Your task to perform on an android device: open a bookmark in the chrome app Image 0: 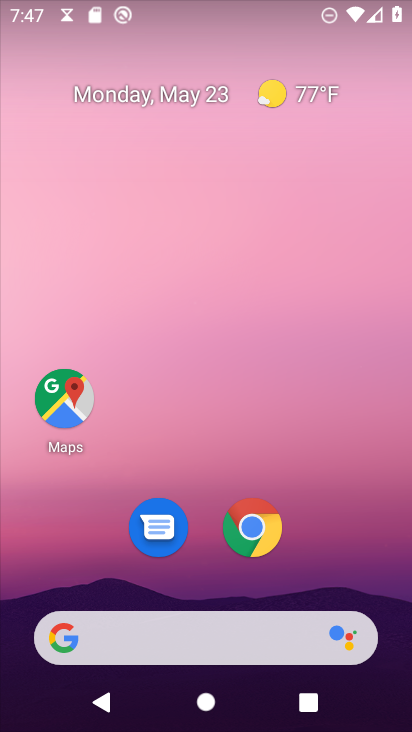
Step 0: drag from (280, 634) to (324, 171)
Your task to perform on an android device: open a bookmark in the chrome app Image 1: 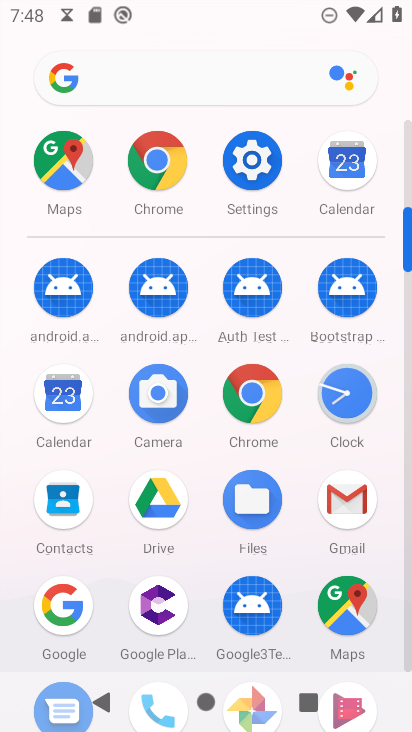
Step 1: click (157, 156)
Your task to perform on an android device: open a bookmark in the chrome app Image 2: 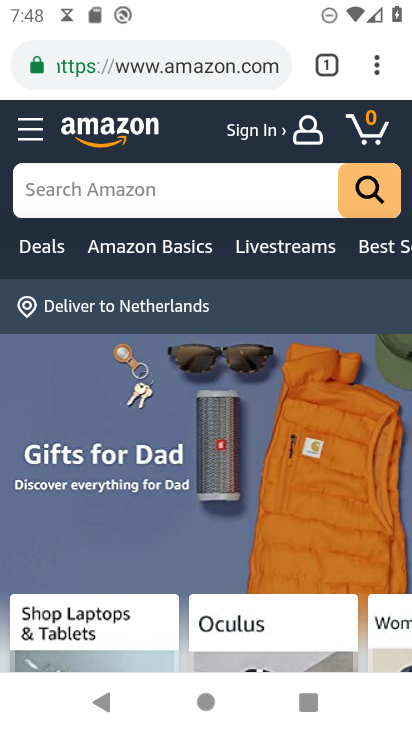
Step 2: click (378, 83)
Your task to perform on an android device: open a bookmark in the chrome app Image 3: 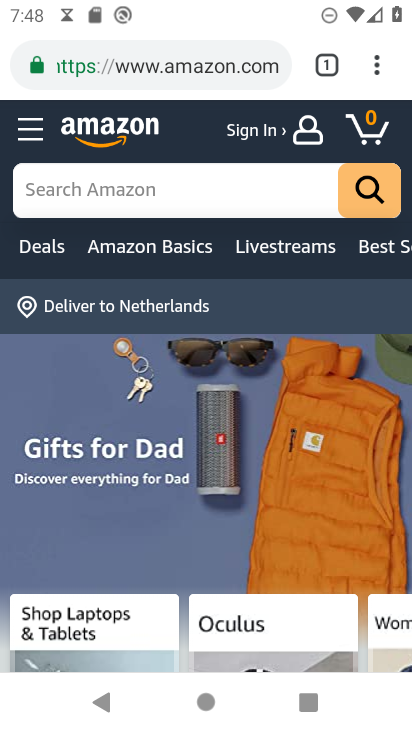
Step 3: click (370, 63)
Your task to perform on an android device: open a bookmark in the chrome app Image 4: 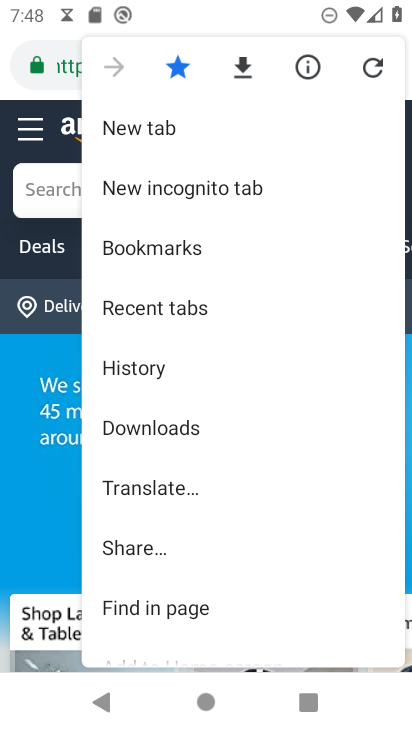
Step 4: click (170, 255)
Your task to perform on an android device: open a bookmark in the chrome app Image 5: 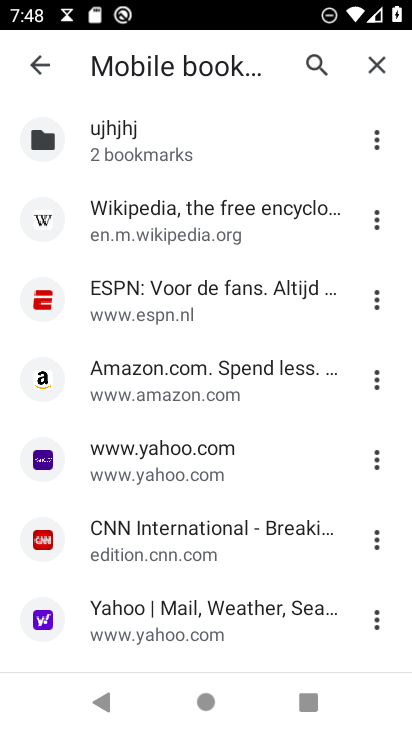
Step 5: task complete